Your task to perform on an android device: Do I have any events tomorrow? Image 0: 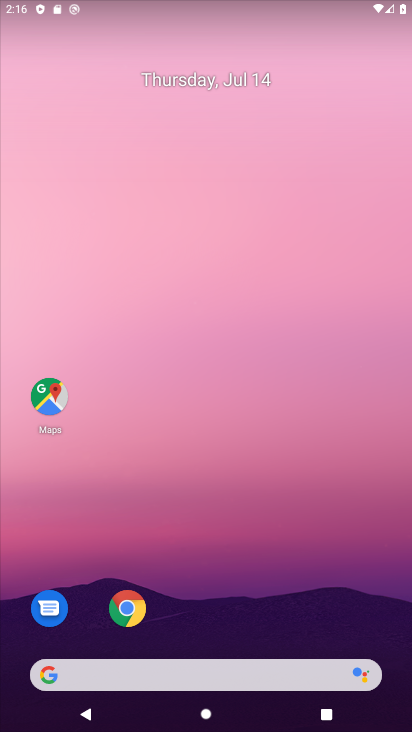
Step 0: drag from (201, 640) to (240, 233)
Your task to perform on an android device: Do I have any events tomorrow? Image 1: 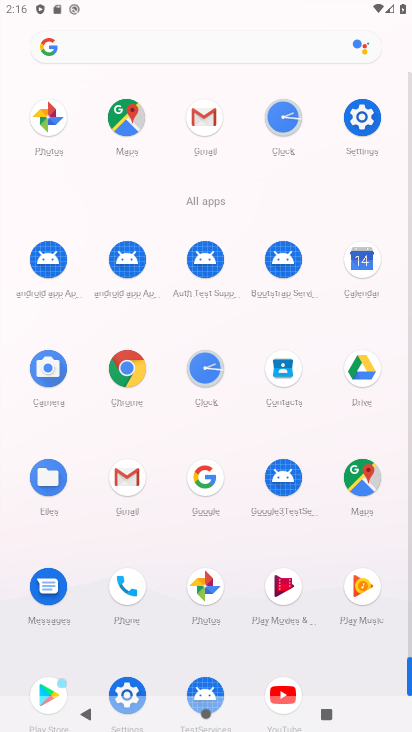
Step 1: drag from (178, 663) to (183, 217)
Your task to perform on an android device: Do I have any events tomorrow? Image 2: 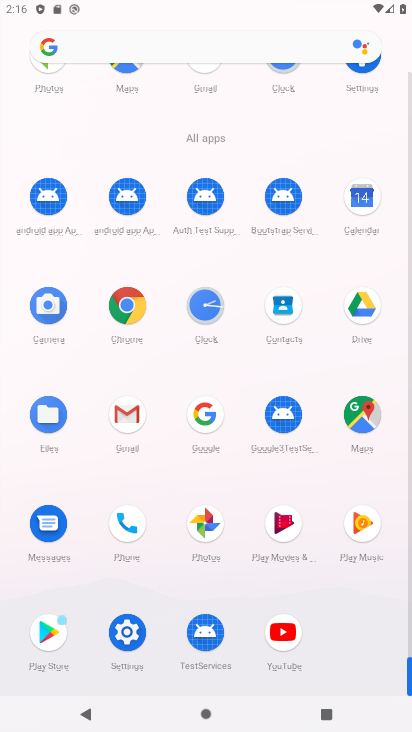
Step 2: drag from (179, 658) to (183, 266)
Your task to perform on an android device: Do I have any events tomorrow? Image 3: 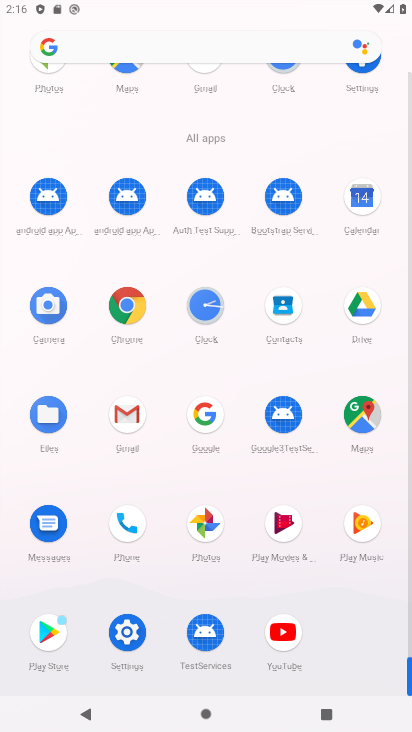
Step 3: drag from (175, 632) to (193, 241)
Your task to perform on an android device: Do I have any events tomorrow? Image 4: 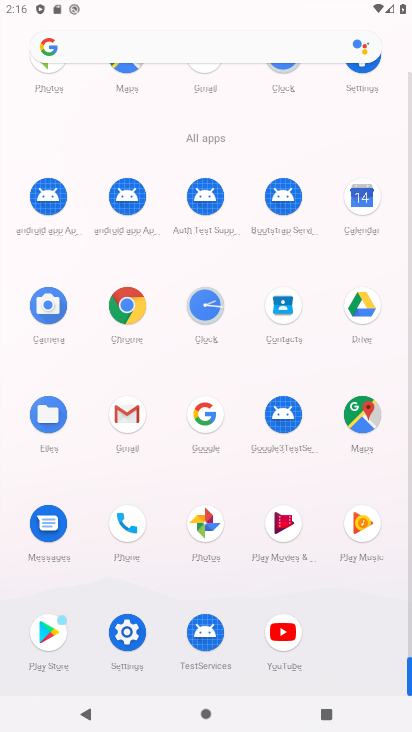
Step 4: drag from (171, 664) to (182, 369)
Your task to perform on an android device: Do I have any events tomorrow? Image 5: 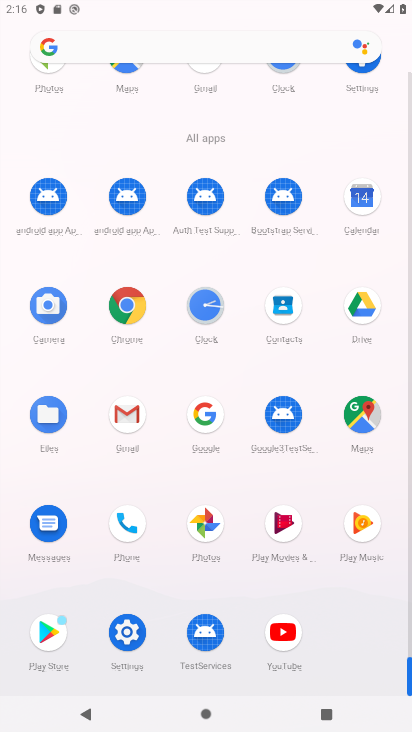
Step 5: drag from (173, 660) to (186, 466)
Your task to perform on an android device: Do I have any events tomorrow? Image 6: 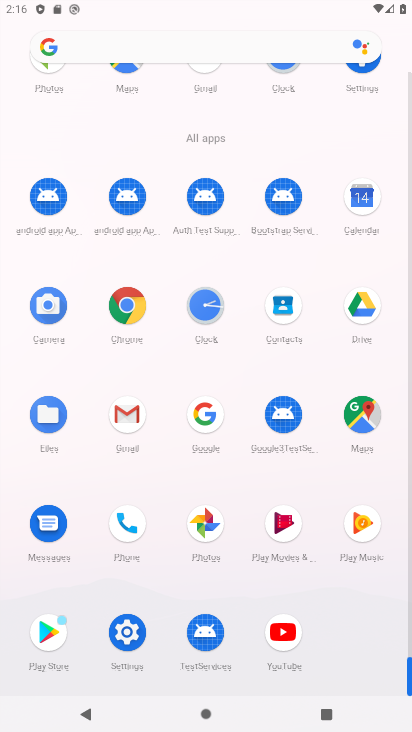
Step 6: drag from (176, 638) to (194, 376)
Your task to perform on an android device: Do I have any events tomorrow? Image 7: 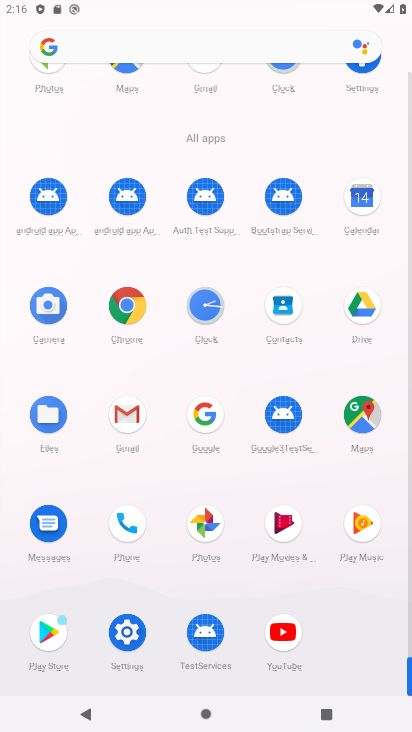
Step 7: drag from (159, 573) to (178, 302)
Your task to perform on an android device: Do I have any events tomorrow? Image 8: 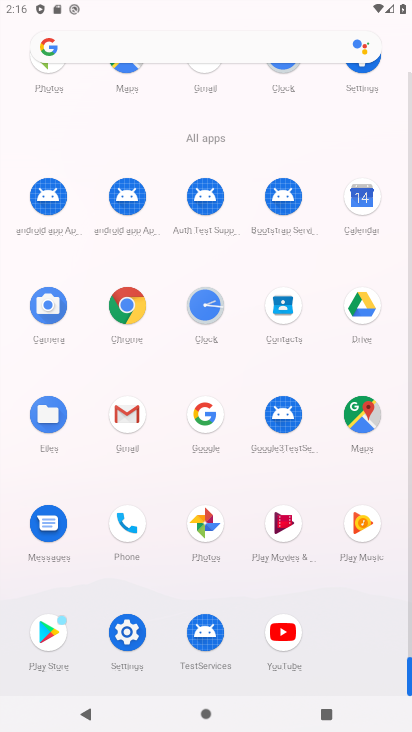
Step 8: drag from (162, 604) to (160, 215)
Your task to perform on an android device: Do I have any events tomorrow? Image 9: 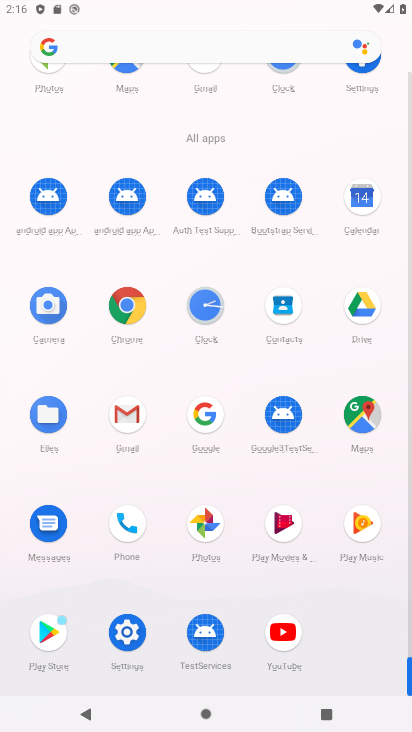
Step 9: drag from (148, 609) to (174, 329)
Your task to perform on an android device: Do I have any events tomorrow? Image 10: 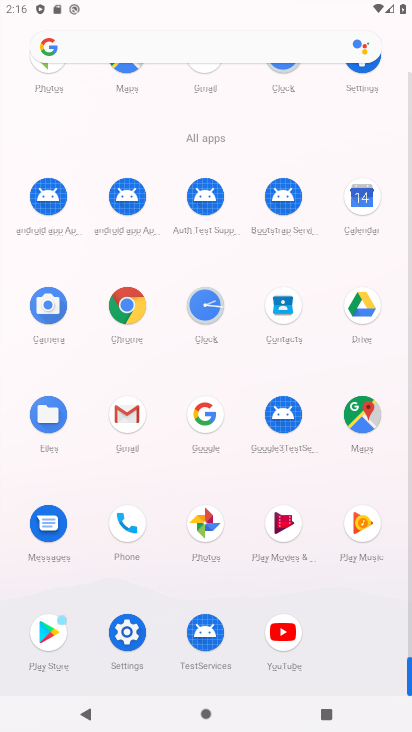
Step 10: click (368, 190)
Your task to perform on an android device: Do I have any events tomorrow? Image 11: 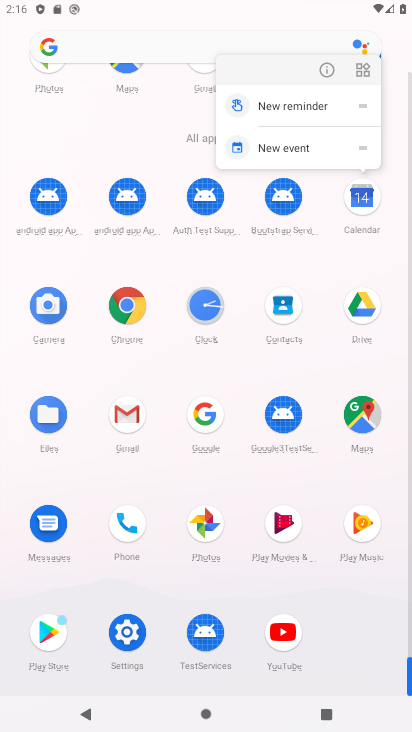
Step 11: click (330, 74)
Your task to perform on an android device: Do I have any events tomorrow? Image 12: 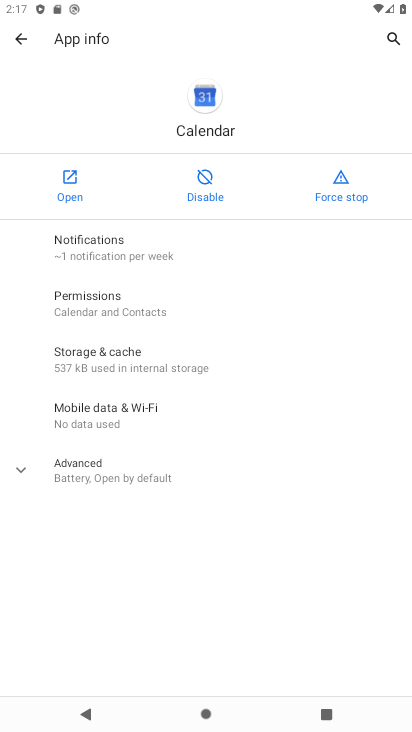
Step 12: click (59, 189)
Your task to perform on an android device: Do I have any events tomorrow? Image 13: 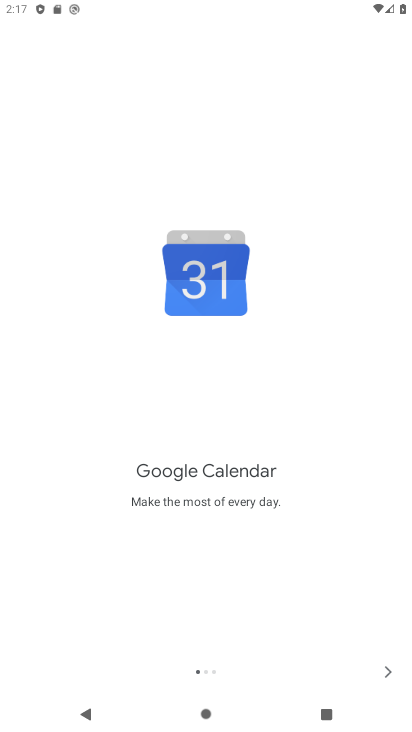
Step 13: drag from (210, 576) to (272, 206)
Your task to perform on an android device: Do I have any events tomorrow? Image 14: 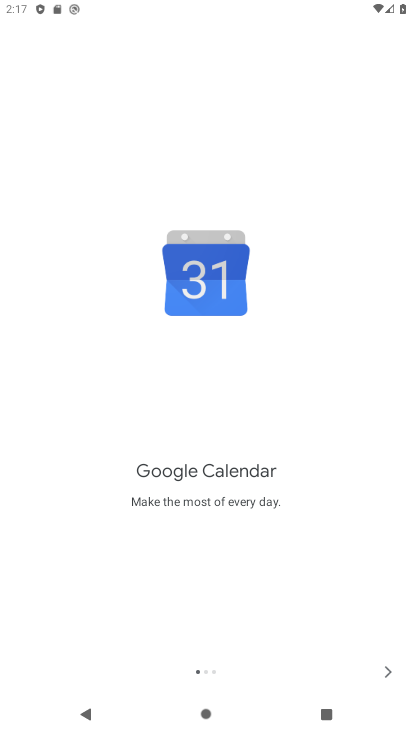
Step 14: click (397, 676)
Your task to perform on an android device: Do I have any events tomorrow? Image 15: 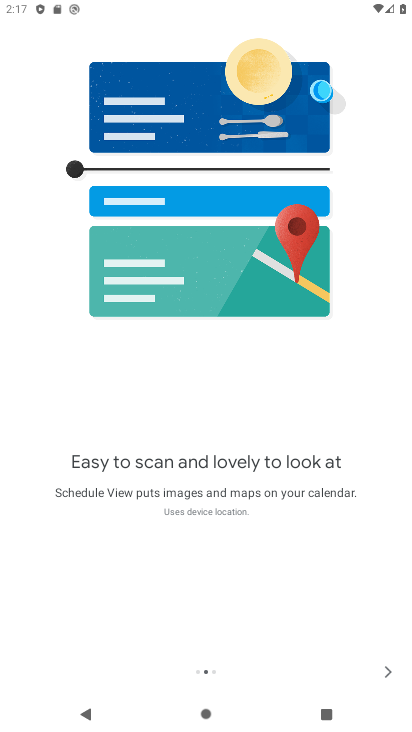
Step 15: drag from (222, 629) to (246, 415)
Your task to perform on an android device: Do I have any events tomorrow? Image 16: 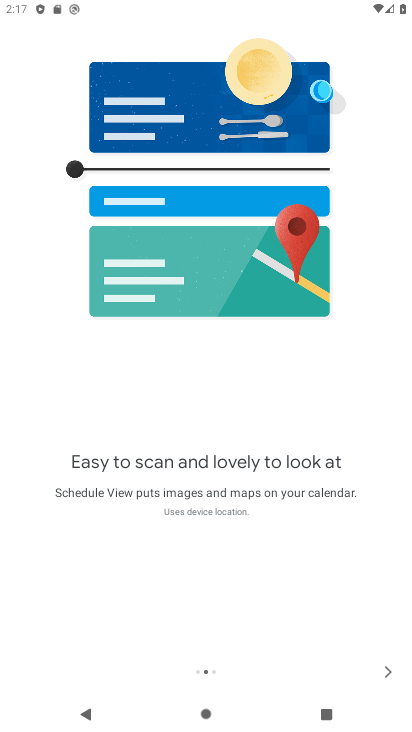
Step 16: click (392, 675)
Your task to perform on an android device: Do I have any events tomorrow? Image 17: 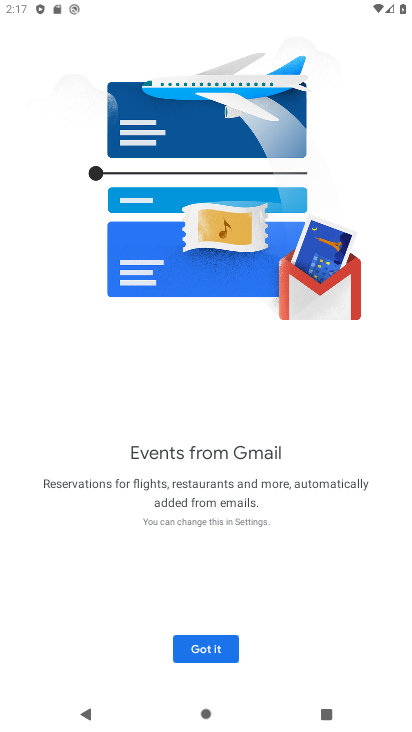
Step 17: click (392, 675)
Your task to perform on an android device: Do I have any events tomorrow? Image 18: 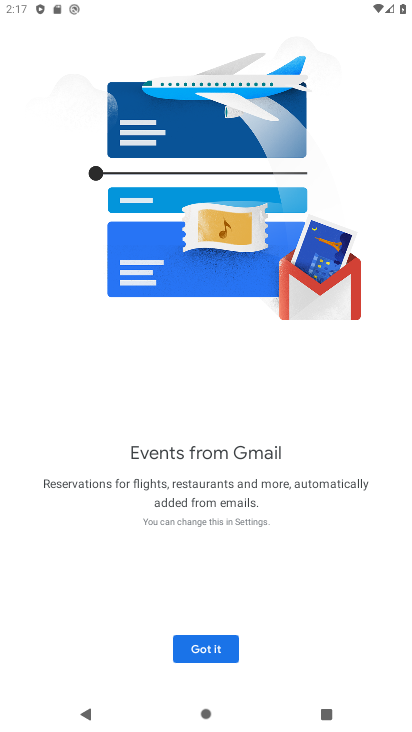
Step 18: click (219, 628)
Your task to perform on an android device: Do I have any events tomorrow? Image 19: 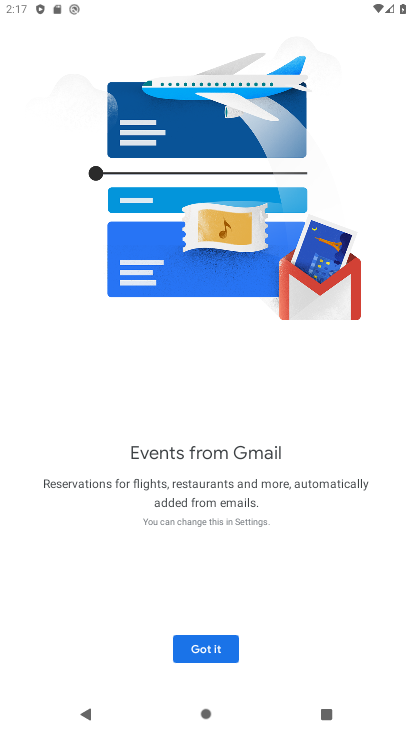
Step 19: click (198, 650)
Your task to perform on an android device: Do I have any events tomorrow? Image 20: 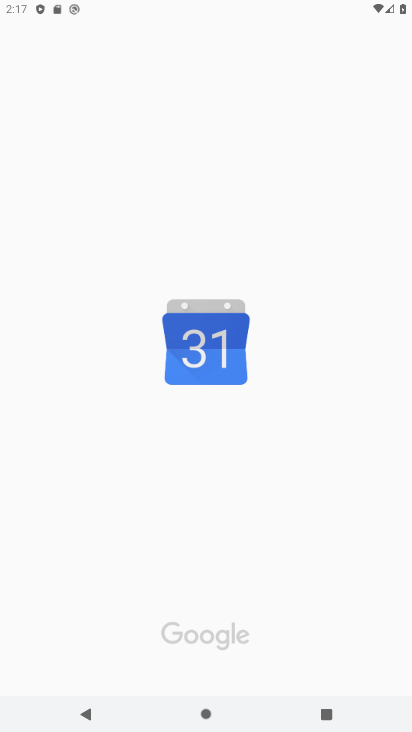
Step 20: drag from (268, 607) to (310, 323)
Your task to perform on an android device: Do I have any events tomorrow? Image 21: 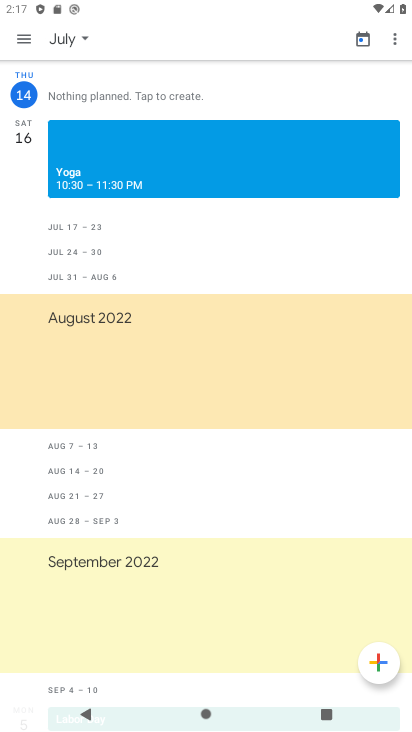
Step 21: drag from (207, 517) to (243, 331)
Your task to perform on an android device: Do I have any events tomorrow? Image 22: 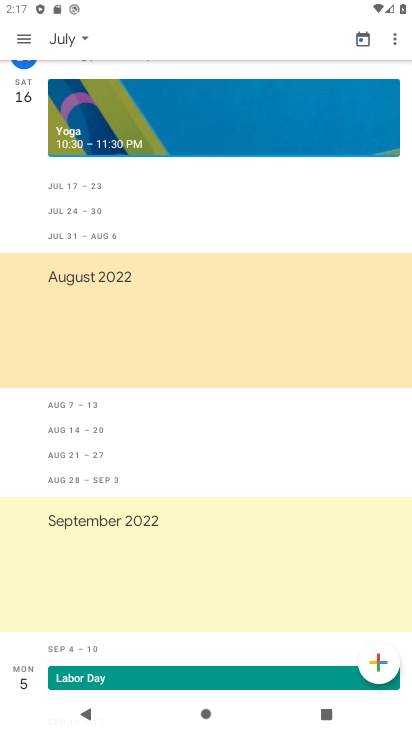
Step 22: drag from (230, 583) to (258, 200)
Your task to perform on an android device: Do I have any events tomorrow? Image 23: 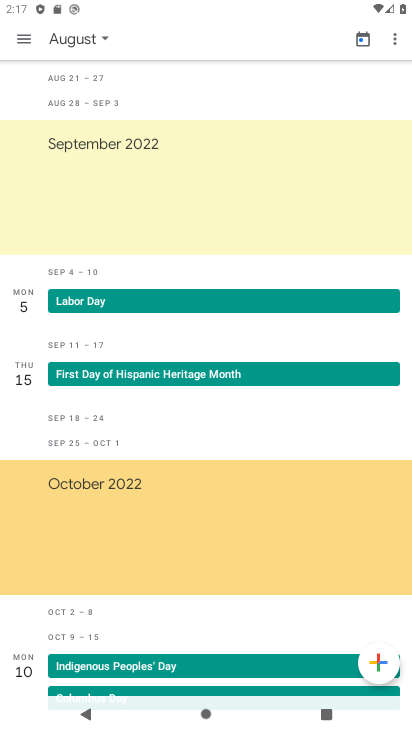
Step 23: drag from (178, 503) to (247, 174)
Your task to perform on an android device: Do I have any events tomorrow? Image 24: 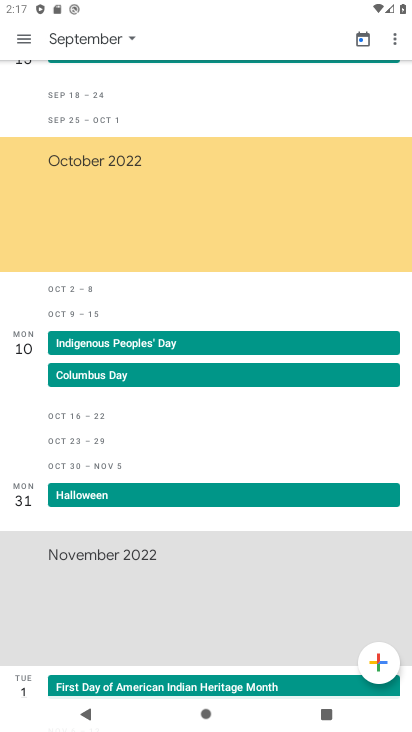
Step 24: drag from (193, 577) to (207, 301)
Your task to perform on an android device: Do I have any events tomorrow? Image 25: 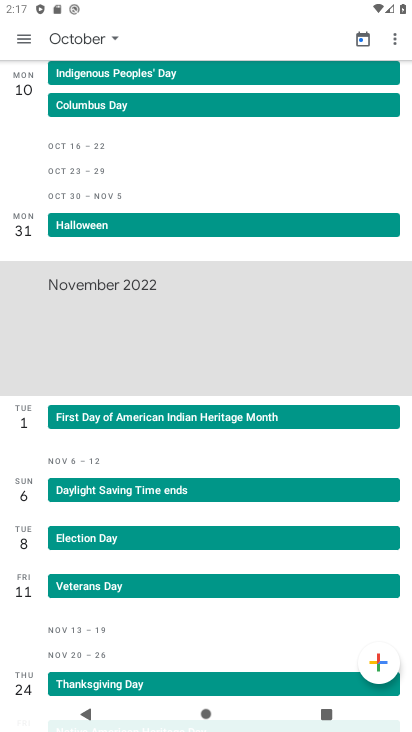
Step 25: drag from (206, 492) to (218, 203)
Your task to perform on an android device: Do I have any events tomorrow? Image 26: 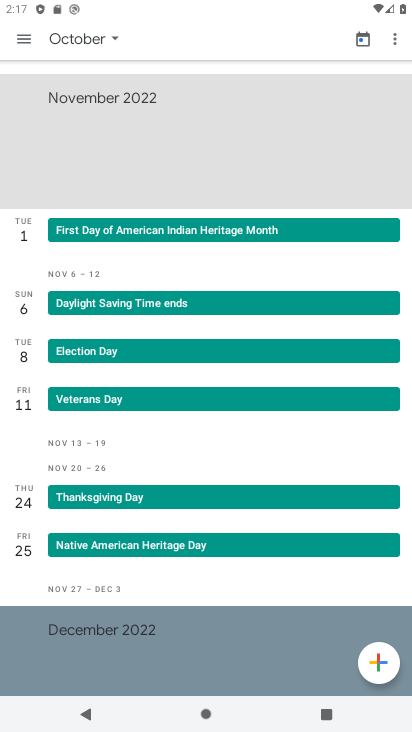
Step 26: drag from (169, 414) to (176, 292)
Your task to perform on an android device: Do I have any events tomorrow? Image 27: 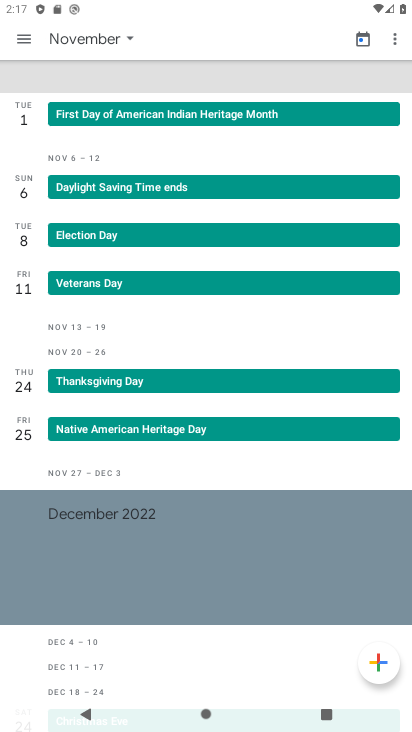
Step 27: drag from (216, 503) to (225, 311)
Your task to perform on an android device: Do I have any events tomorrow? Image 28: 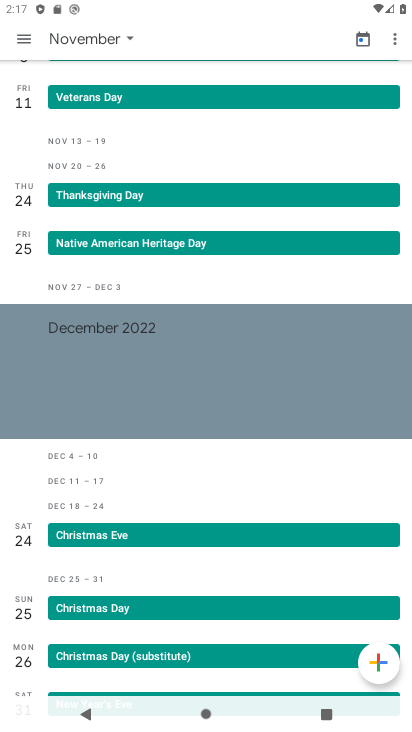
Step 28: drag from (198, 488) to (210, 188)
Your task to perform on an android device: Do I have any events tomorrow? Image 29: 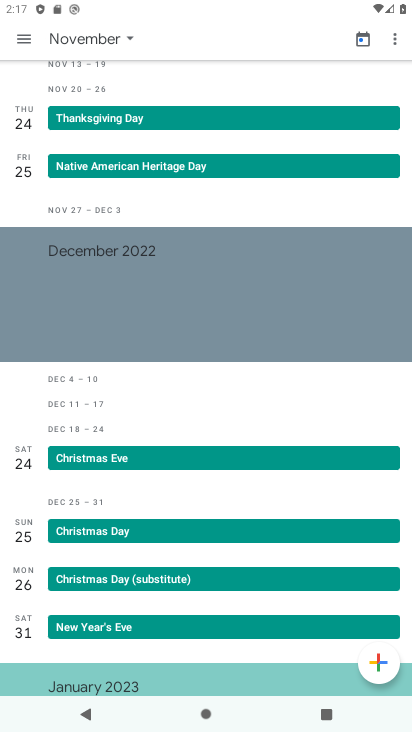
Step 29: drag from (210, 490) to (259, 96)
Your task to perform on an android device: Do I have any events tomorrow? Image 30: 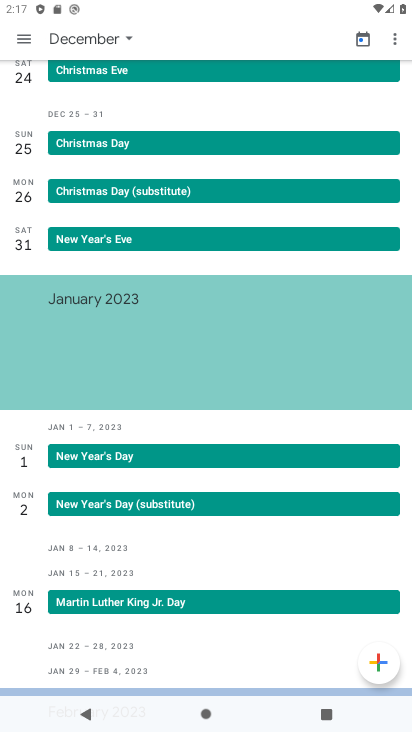
Step 30: drag from (199, 523) to (259, 118)
Your task to perform on an android device: Do I have any events tomorrow? Image 31: 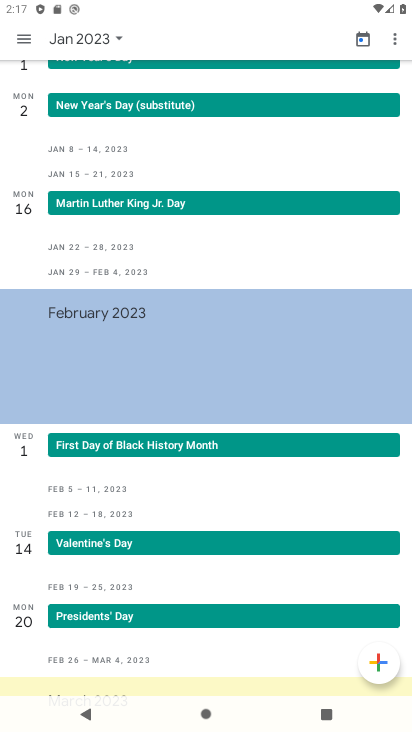
Step 31: drag from (211, 202) to (276, 448)
Your task to perform on an android device: Do I have any events tomorrow? Image 32: 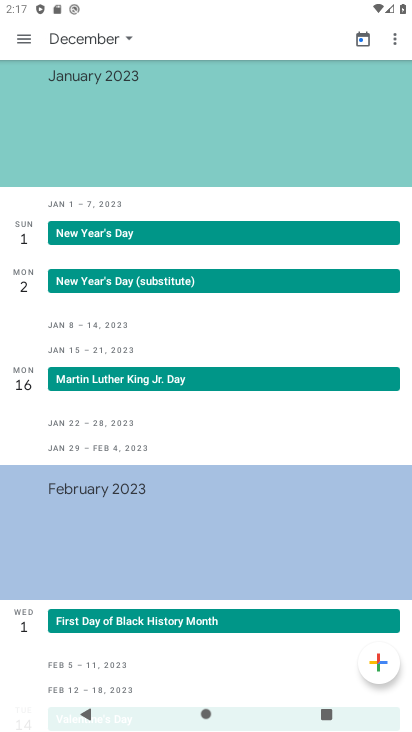
Step 32: drag from (251, 191) to (369, 718)
Your task to perform on an android device: Do I have any events tomorrow? Image 33: 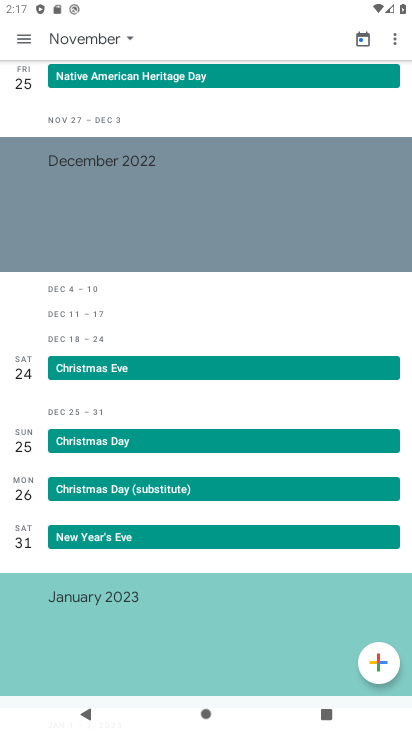
Step 33: click (92, 37)
Your task to perform on an android device: Do I have any events tomorrow? Image 34: 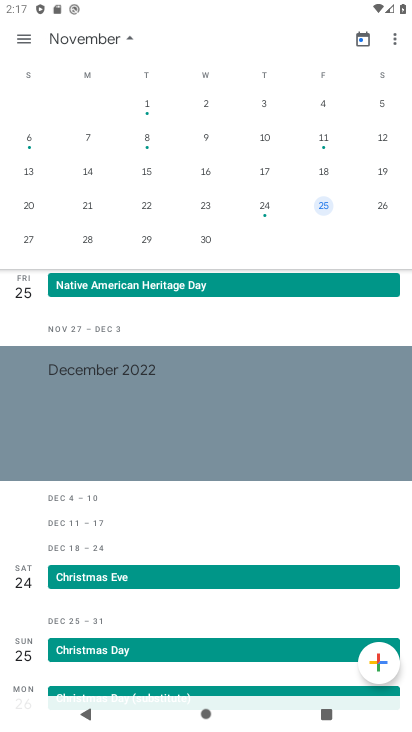
Step 34: drag from (216, 531) to (231, 271)
Your task to perform on an android device: Do I have any events tomorrow? Image 35: 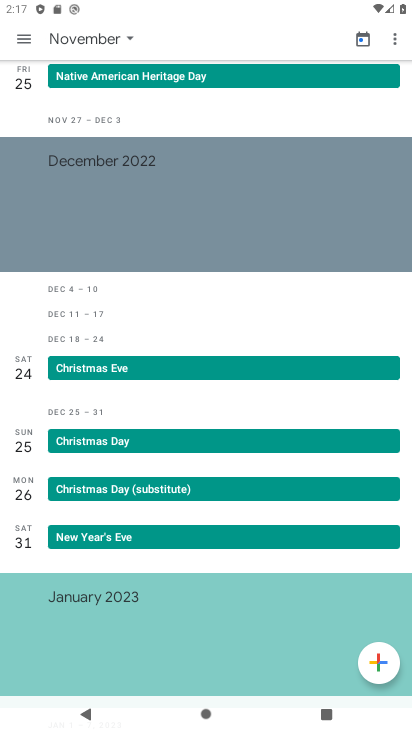
Step 35: drag from (300, 213) to (281, 554)
Your task to perform on an android device: Do I have any events tomorrow? Image 36: 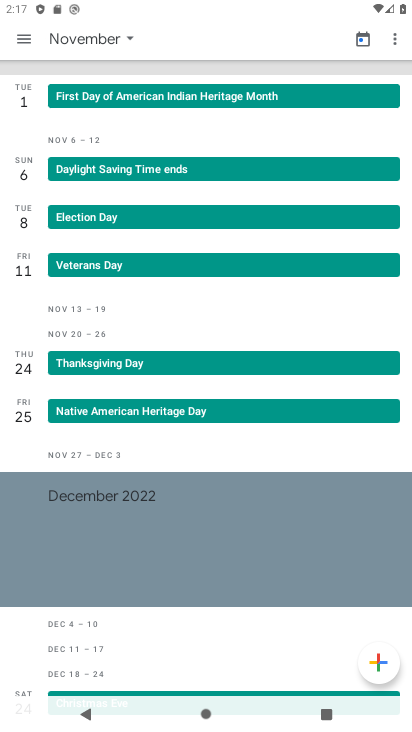
Step 36: click (94, 48)
Your task to perform on an android device: Do I have any events tomorrow? Image 37: 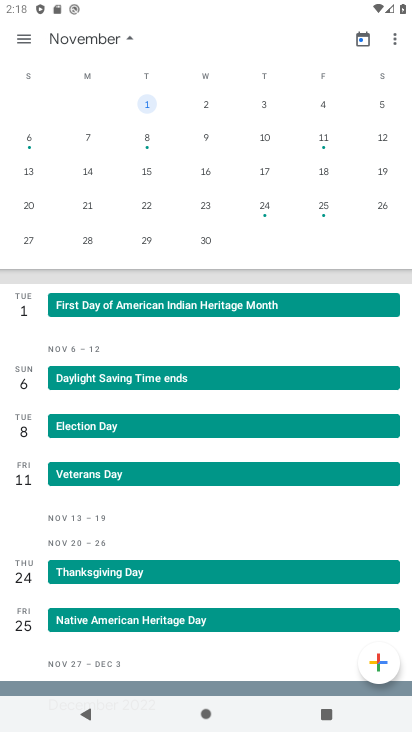
Step 37: click (357, 36)
Your task to perform on an android device: Do I have any events tomorrow? Image 38: 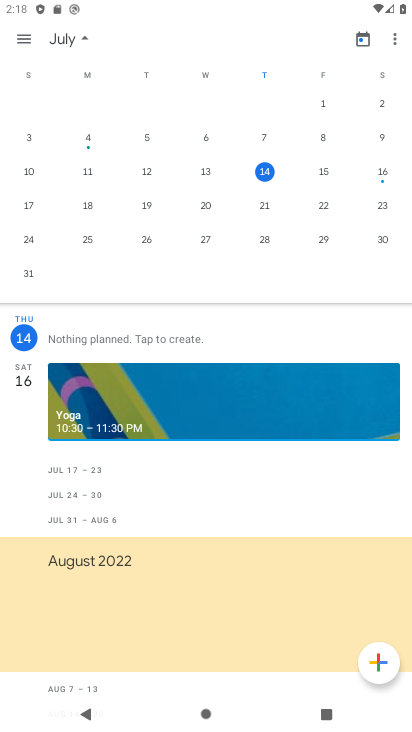
Step 38: click (326, 172)
Your task to perform on an android device: Do I have any events tomorrow? Image 39: 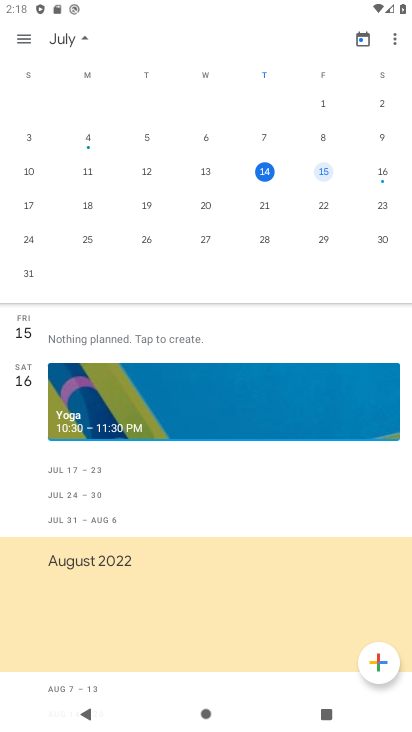
Step 39: drag from (238, 491) to (225, 222)
Your task to perform on an android device: Do I have any events tomorrow? Image 40: 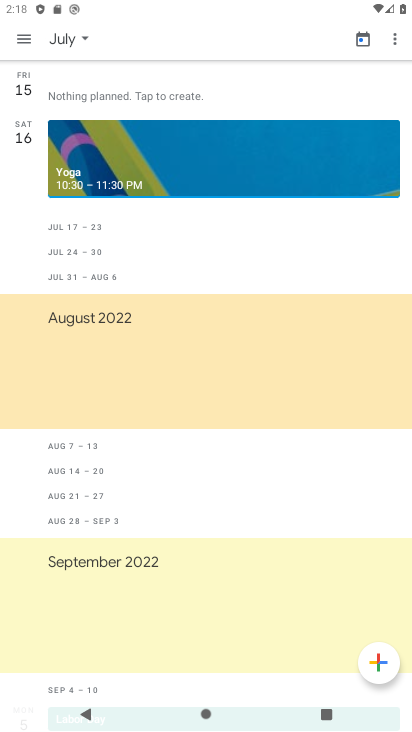
Step 40: click (363, 34)
Your task to perform on an android device: Do I have any events tomorrow? Image 41: 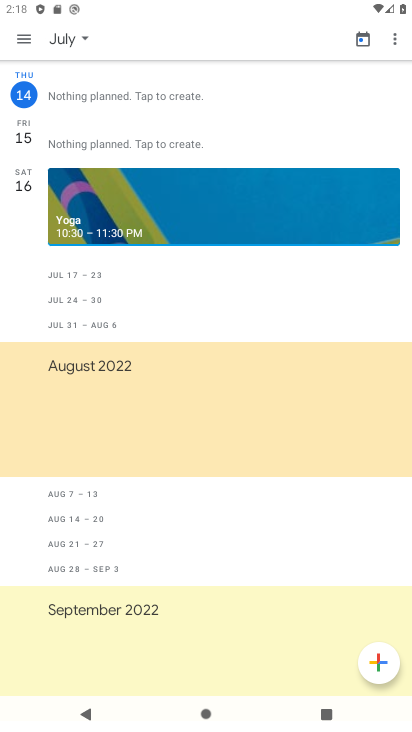
Step 41: click (365, 36)
Your task to perform on an android device: Do I have any events tomorrow? Image 42: 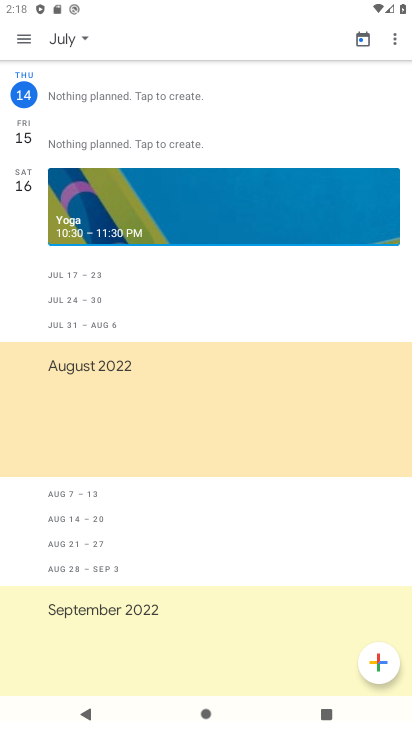
Step 42: click (363, 46)
Your task to perform on an android device: Do I have any events tomorrow? Image 43: 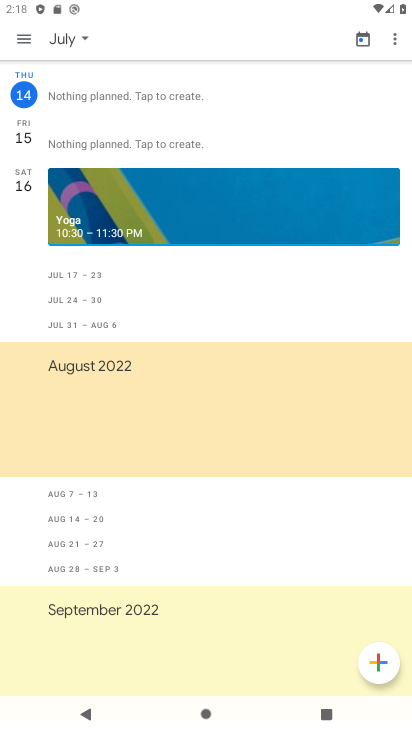
Step 43: click (365, 33)
Your task to perform on an android device: Do I have any events tomorrow? Image 44: 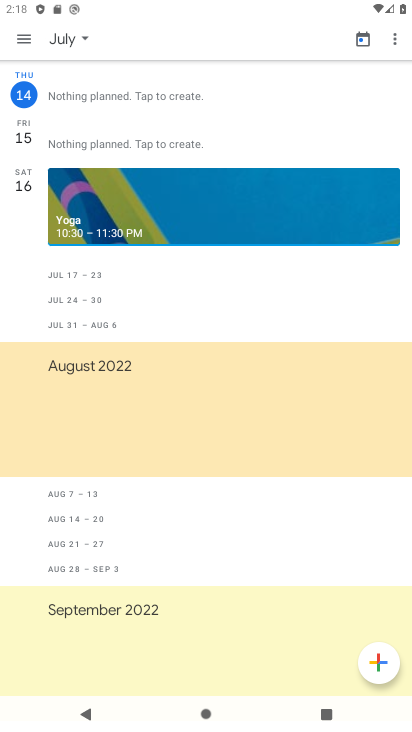
Step 44: task complete